Your task to perform on an android device: Go to wifi settings Image 0: 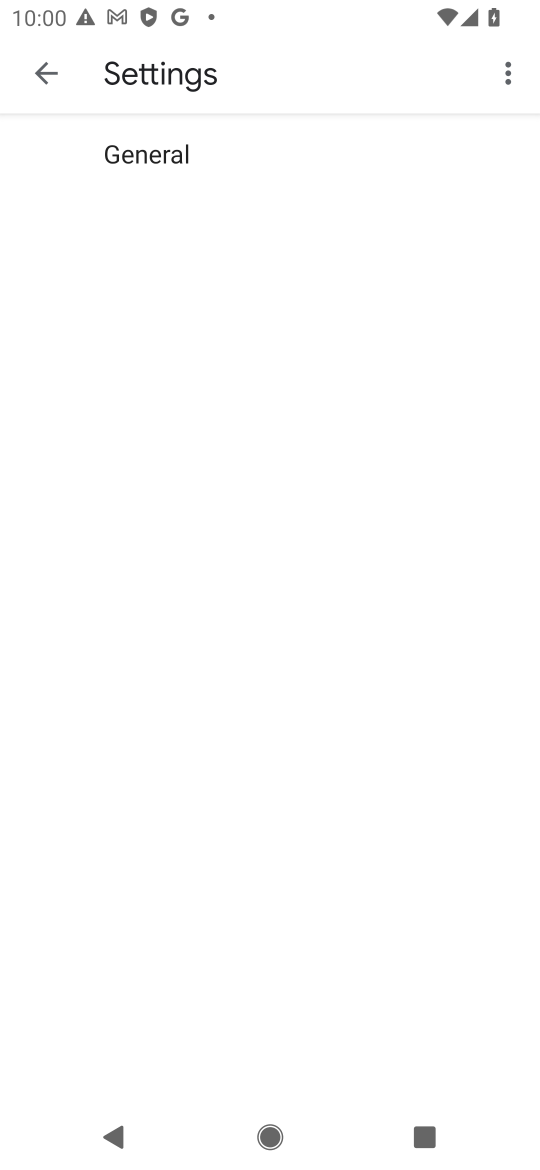
Step 0: press home button
Your task to perform on an android device: Go to wifi settings Image 1: 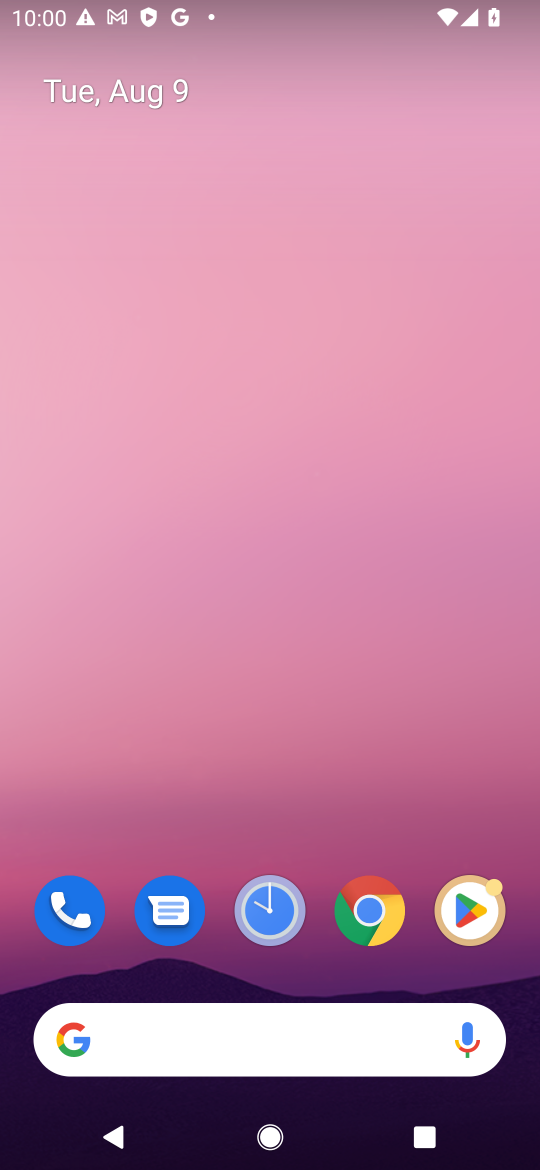
Step 1: drag from (271, 136) to (193, 736)
Your task to perform on an android device: Go to wifi settings Image 2: 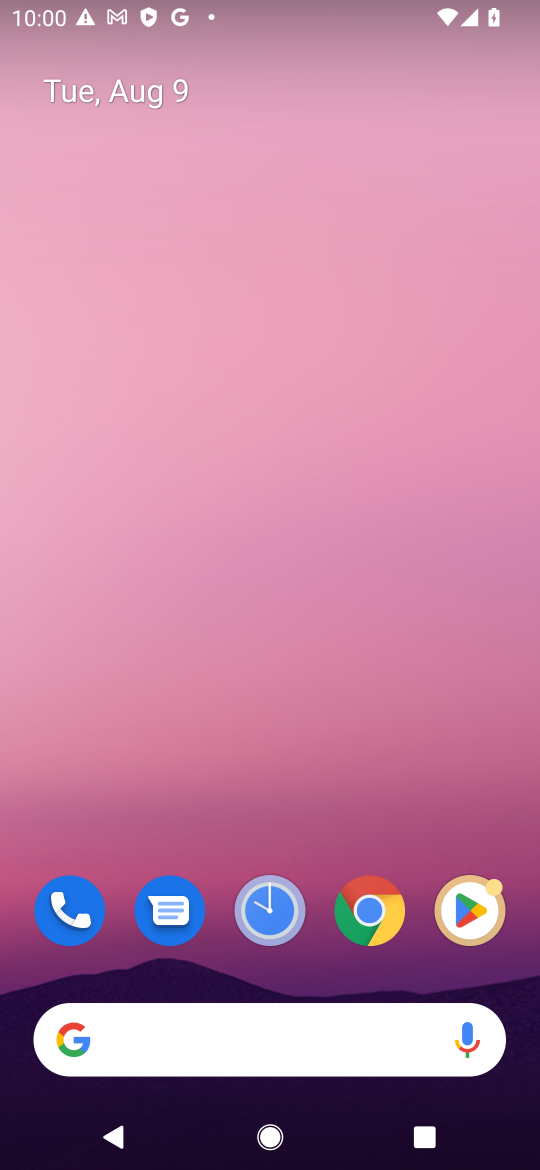
Step 2: drag from (470, 104) to (368, 705)
Your task to perform on an android device: Go to wifi settings Image 3: 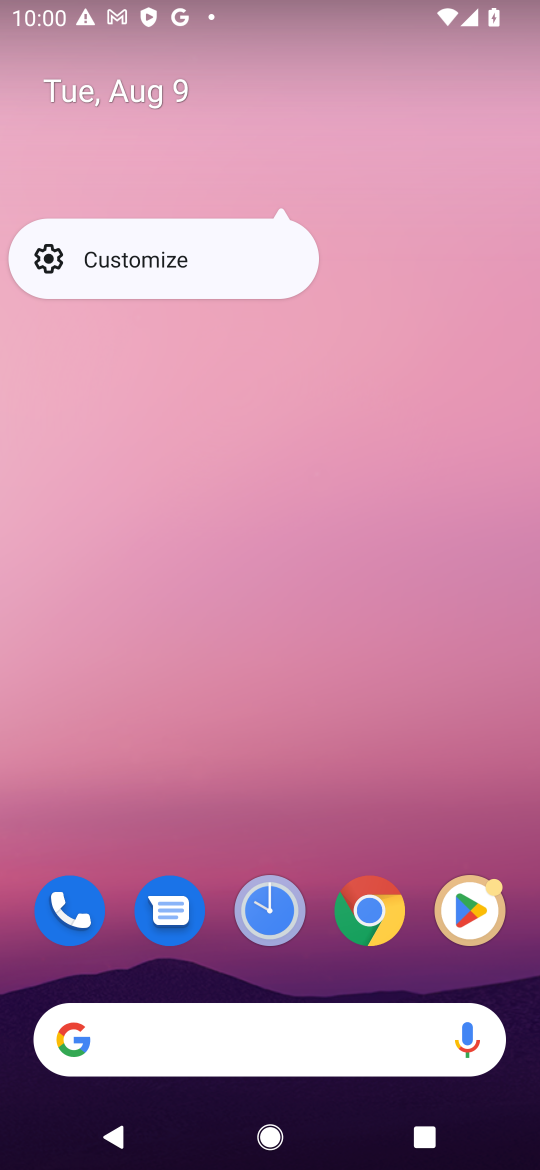
Step 3: drag from (377, 23) to (372, 697)
Your task to perform on an android device: Go to wifi settings Image 4: 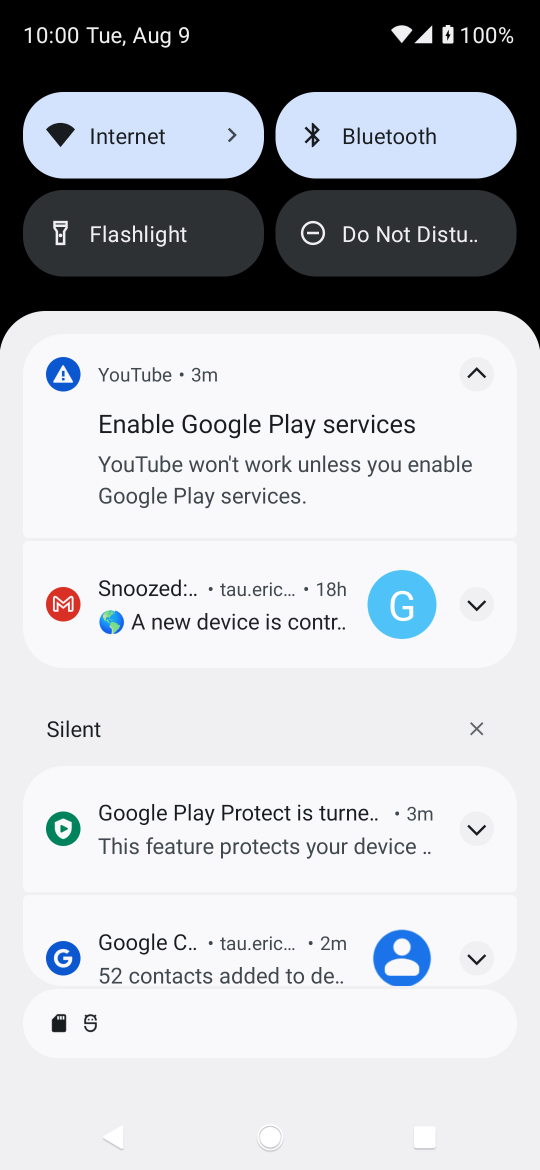
Step 4: click (229, 141)
Your task to perform on an android device: Go to wifi settings Image 5: 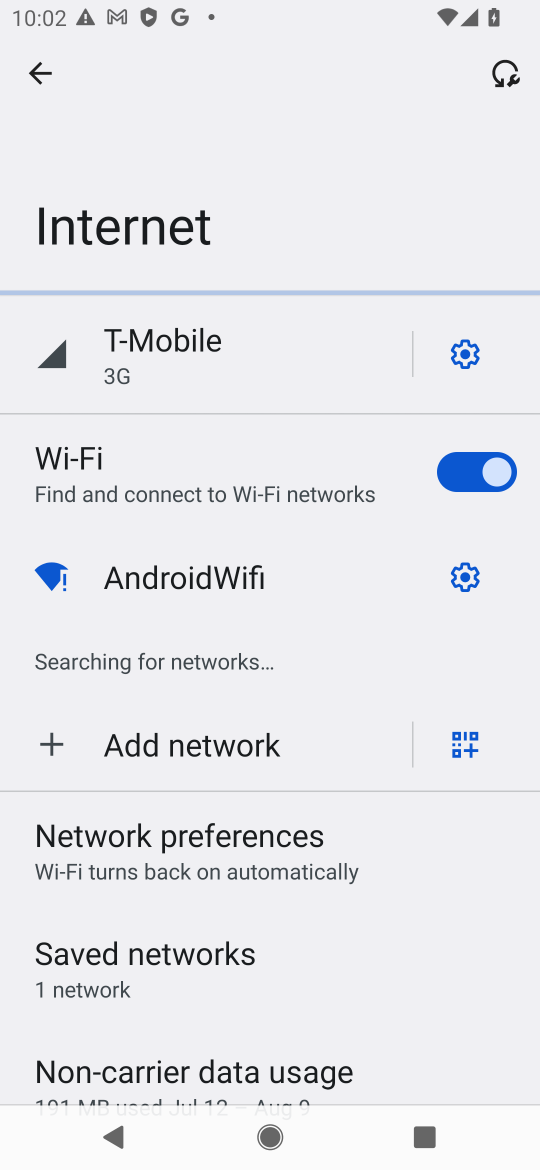
Step 5: task complete